Your task to perform on an android device: turn off data saver in the chrome app Image 0: 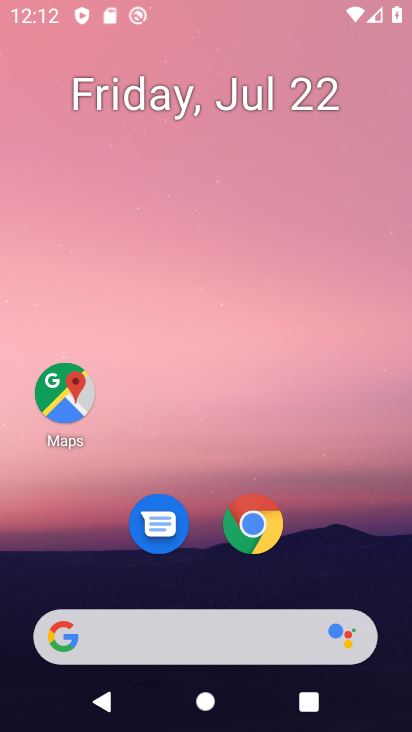
Step 0: press home button
Your task to perform on an android device: turn off data saver in the chrome app Image 1: 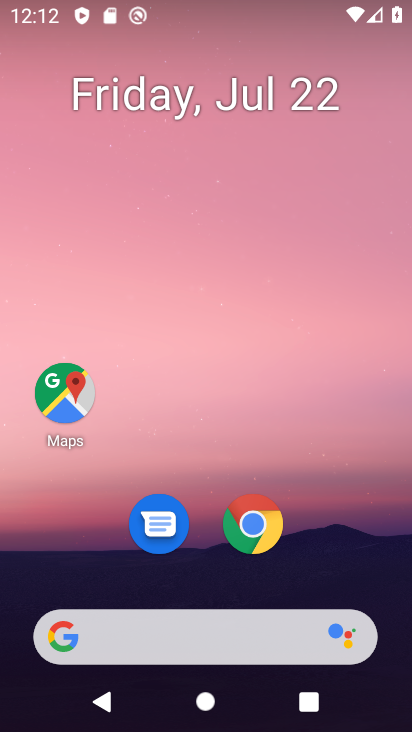
Step 1: click (253, 538)
Your task to perform on an android device: turn off data saver in the chrome app Image 2: 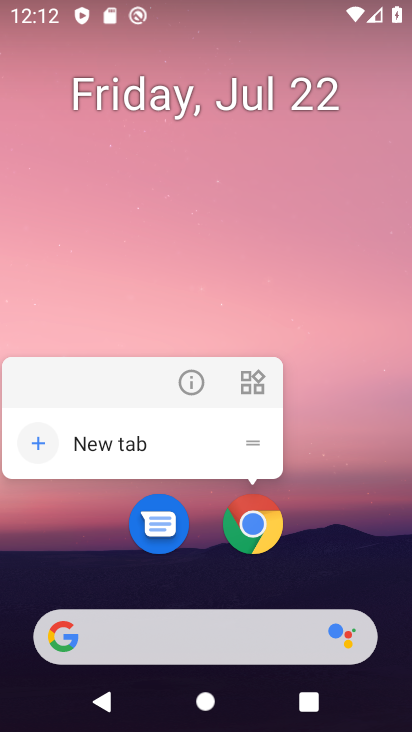
Step 2: click (254, 514)
Your task to perform on an android device: turn off data saver in the chrome app Image 3: 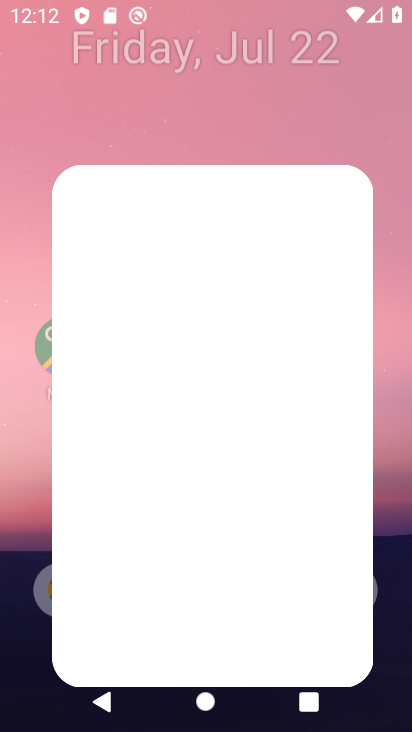
Step 3: click (254, 515)
Your task to perform on an android device: turn off data saver in the chrome app Image 4: 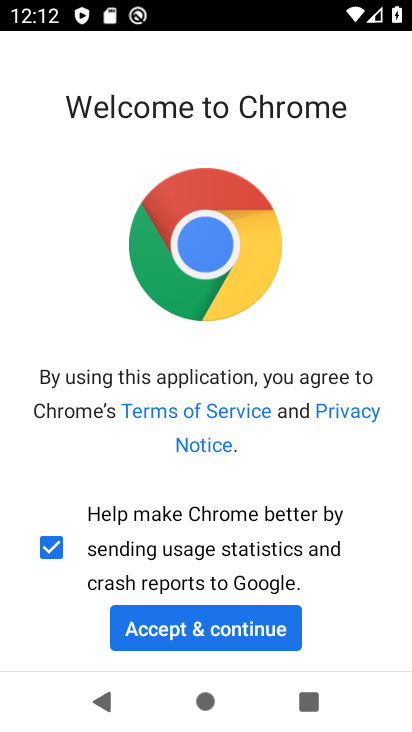
Step 4: click (195, 632)
Your task to perform on an android device: turn off data saver in the chrome app Image 5: 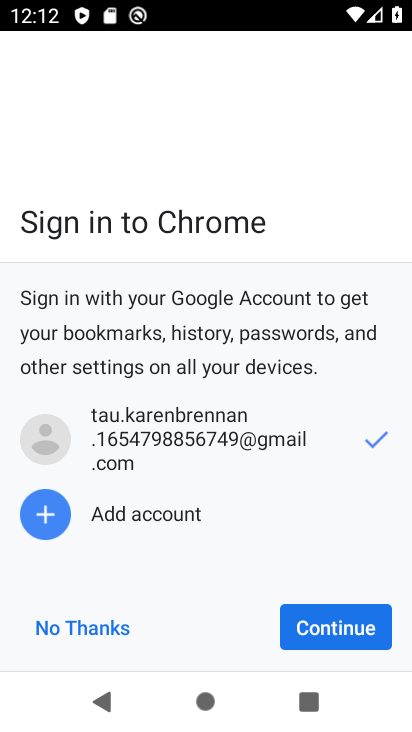
Step 5: click (318, 621)
Your task to perform on an android device: turn off data saver in the chrome app Image 6: 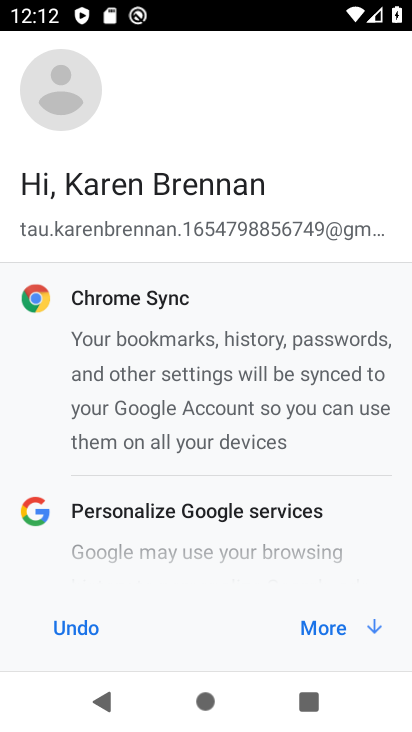
Step 6: click (331, 634)
Your task to perform on an android device: turn off data saver in the chrome app Image 7: 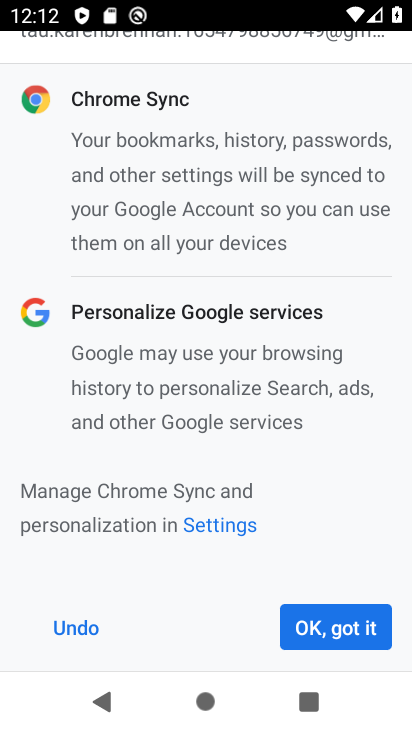
Step 7: click (337, 620)
Your task to perform on an android device: turn off data saver in the chrome app Image 8: 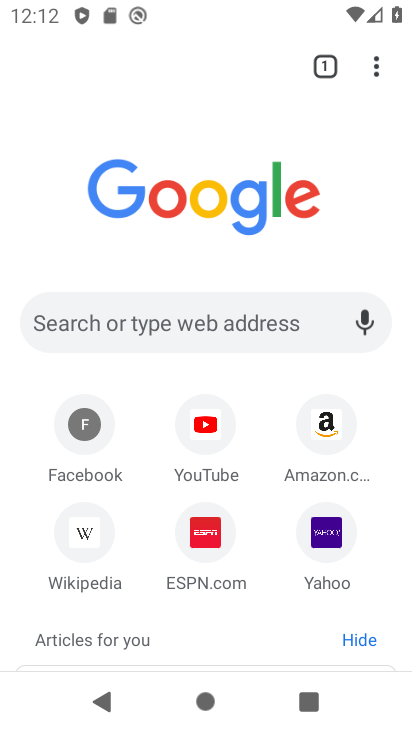
Step 8: drag from (378, 64) to (252, 555)
Your task to perform on an android device: turn off data saver in the chrome app Image 9: 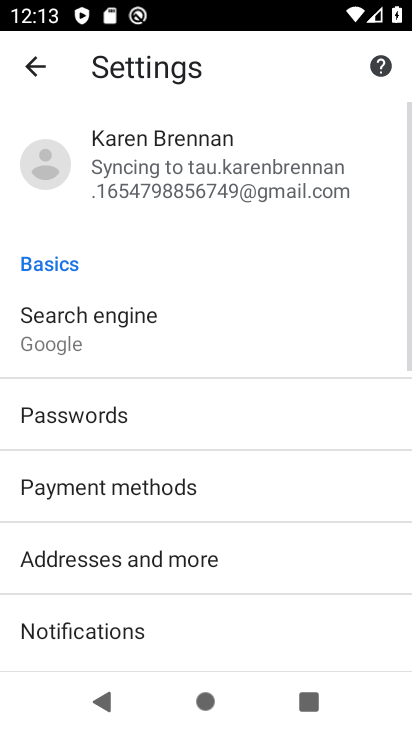
Step 9: drag from (224, 616) to (314, 226)
Your task to perform on an android device: turn off data saver in the chrome app Image 10: 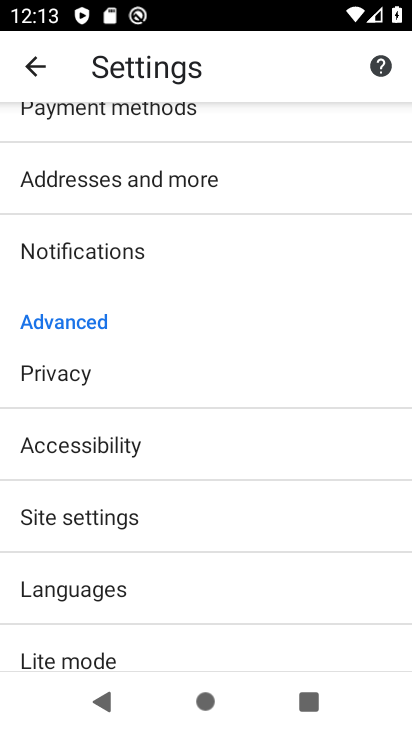
Step 10: click (92, 648)
Your task to perform on an android device: turn off data saver in the chrome app Image 11: 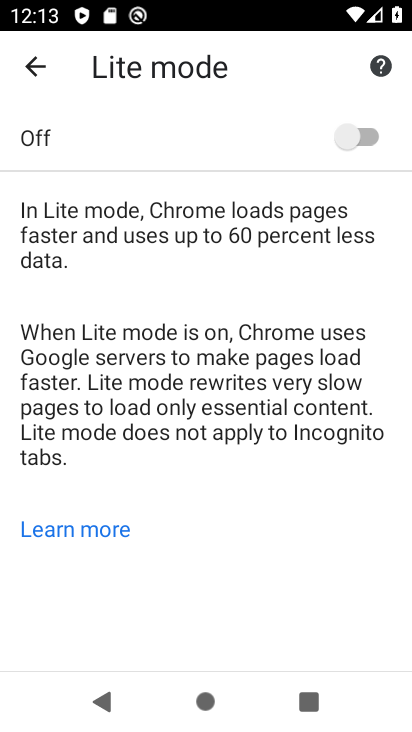
Step 11: task complete